Your task to perform on an android device: turn pop-ups on in chrome Image 0: 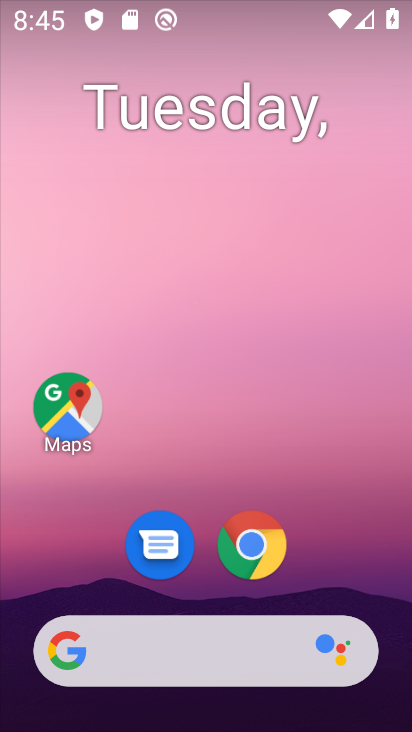
Step 0: click (244, 544)
Your task to perform on an android device: turn pop-ups on in chrome Image 1: 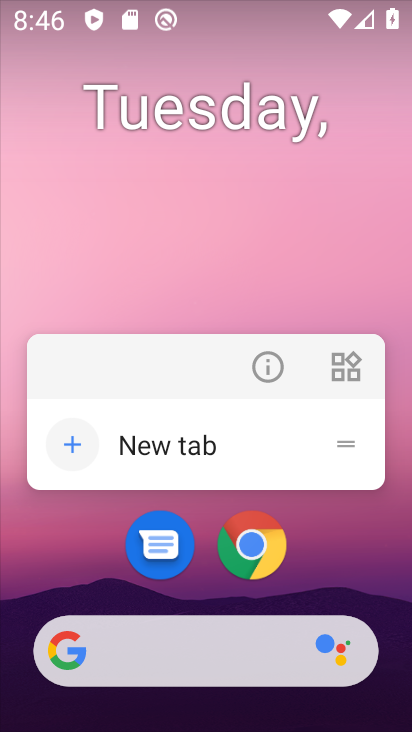
Step 1: click (237, 546)
Your task to perform on an android device: turn pop-ups on in chrome Image 2: 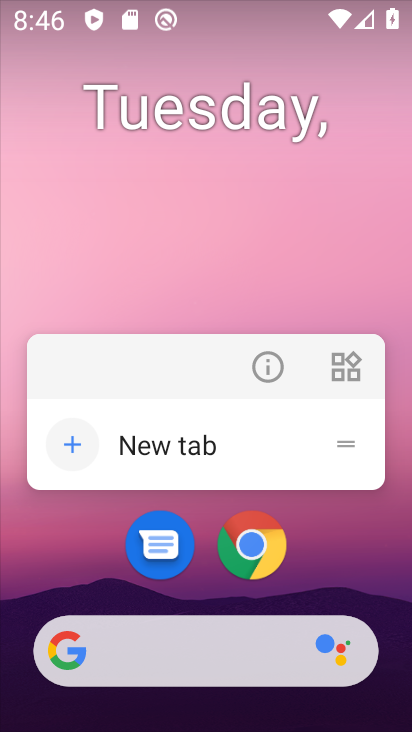
Step 2: click (238, 544)
Your task to perform on an android device: turn pop-ups on in chrome Image 3: 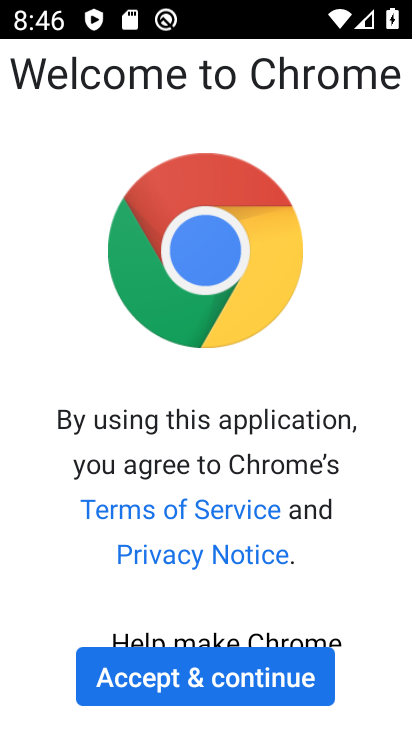
Step 3: click (258, 672)
Your task to perform on an android device: turn pop-ups on in chrome Image 4: 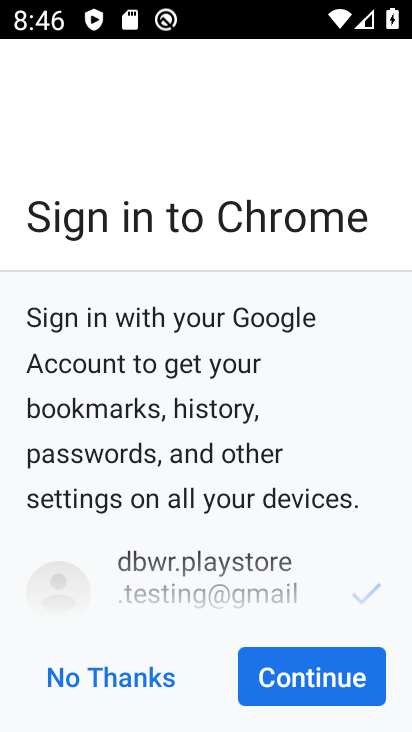
Step 4: click (261, 668)
Your task to perform on an android device: turn pop-ups on in chrome Image 5: 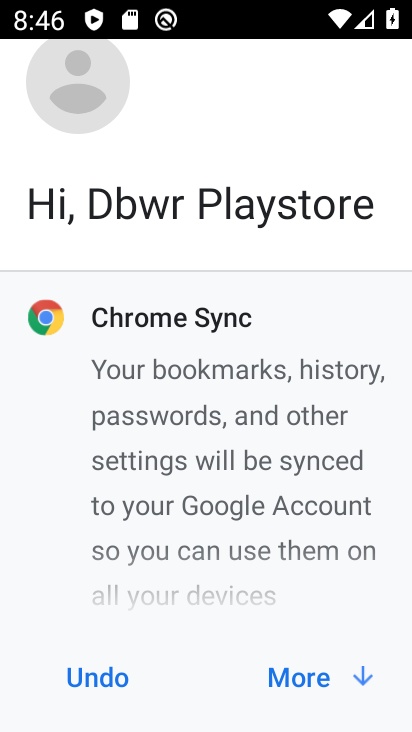
Step 5: click (258, 663)
Your task to perform on an android device: turn pop-ups on in chrome Image 6: 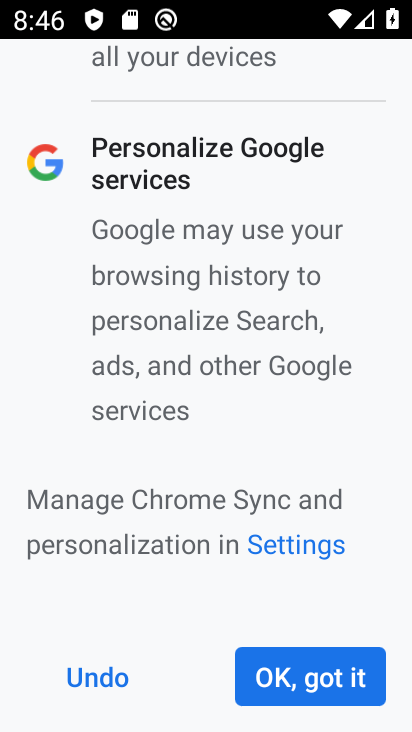
Step 6: click (265, 660)
Your task to perform on an android device: turn pop-ups on in chrome Image 7: 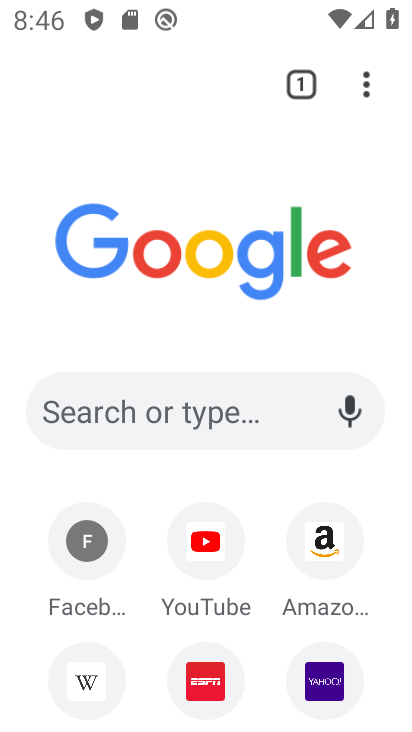
Step 7: click (371, 93)
Your task to perform on an android device: turn pop-ups on in chrome Image 8: 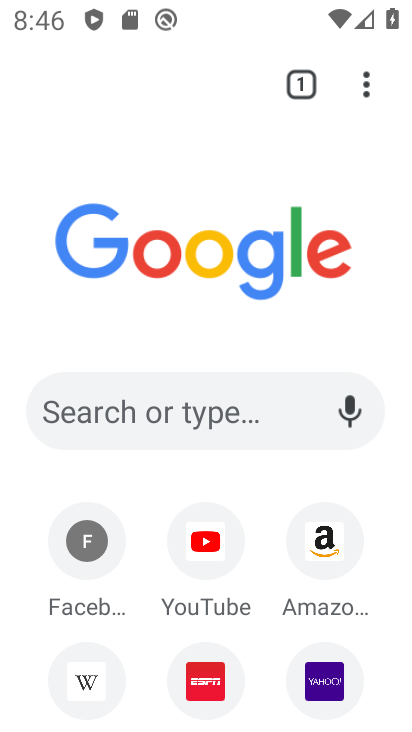
Step 8: click (389, 85)
Your task to perform on an android device: turn pop-ups on in chrome Image 9: 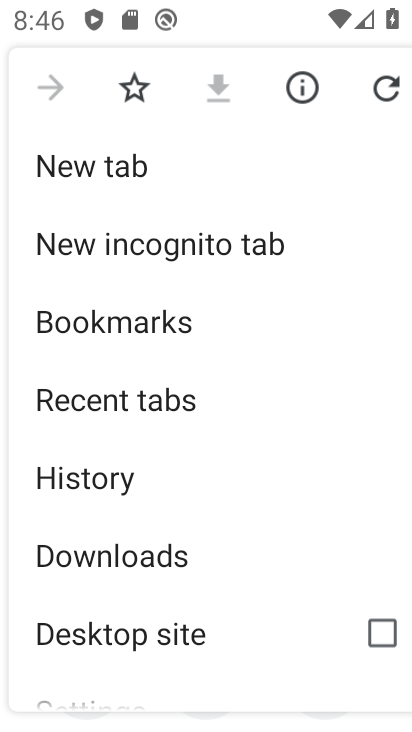
Step 9: drag from (212, 607) to (191, 252)
Your task to perform on an android device: turn pop-ups on in chrome Image 10: 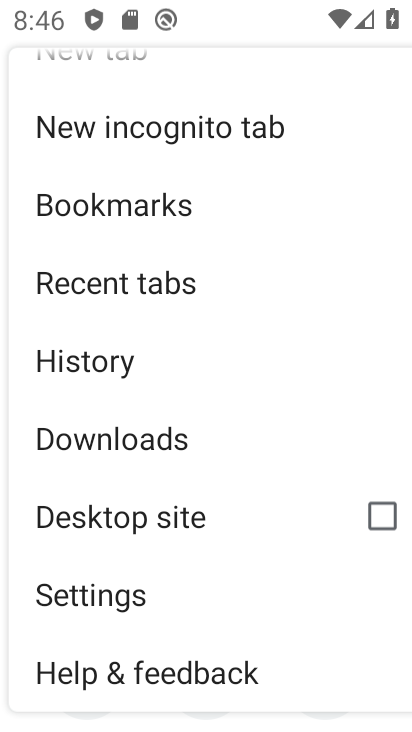
Step 10: click (148, 593)
Your task to perform on an android device: turn pop-ups on in chrome Image 11: 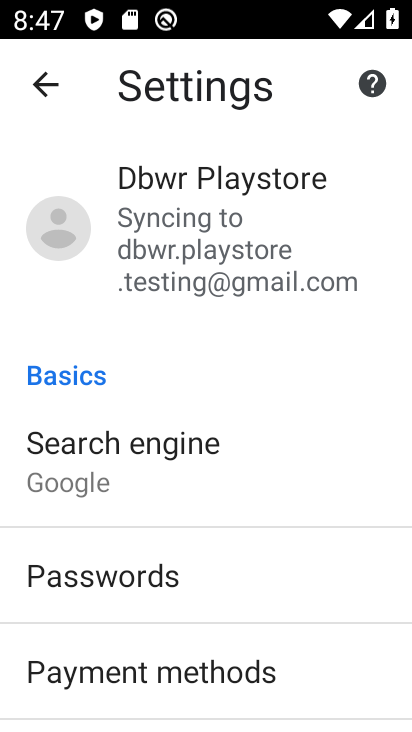
Step 11: drag from (157, 583) to (236, 254)
Your task to perform on an android device: turn pop-ups on in chrome Image 12: 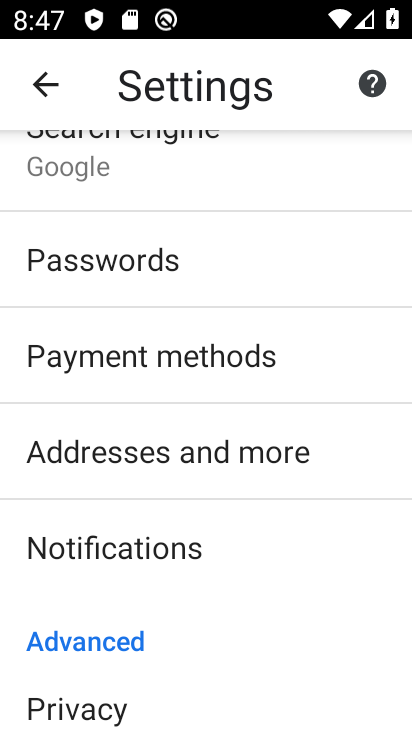
Step 12: drag from (162, 604) to (191, 195)
Your task to perform on an android device: turn pop-ups on in chrome Image 13: 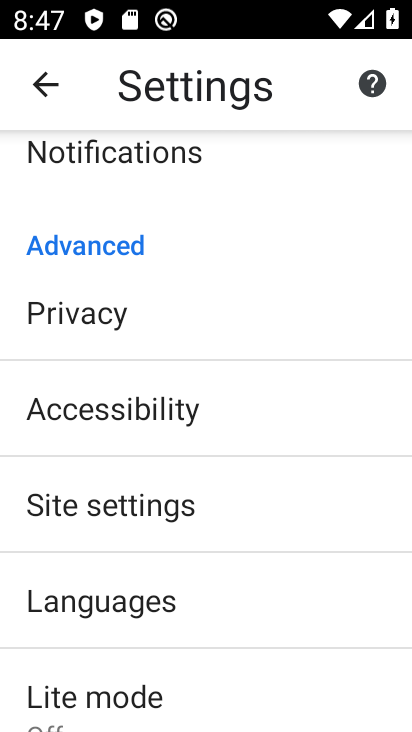
Step 13: click (131, 495)
Your task to perform on an android device: turn pop-ups on in chrome Image 14: 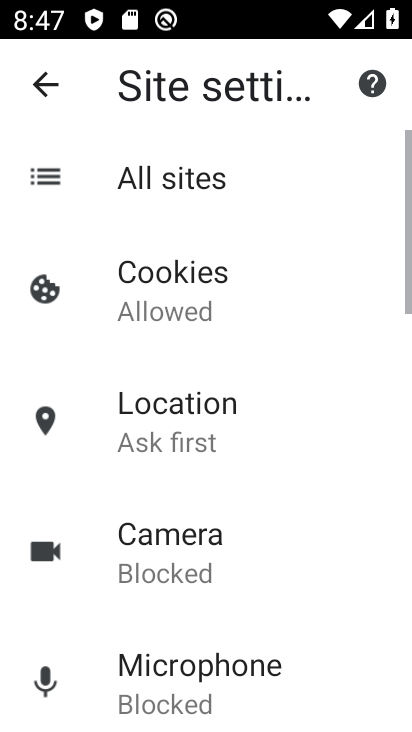
Step 14: drag from (256, 616) to (291, 283)
Your task to perform on an android device: turn pop-ups on in chrome Image 15: 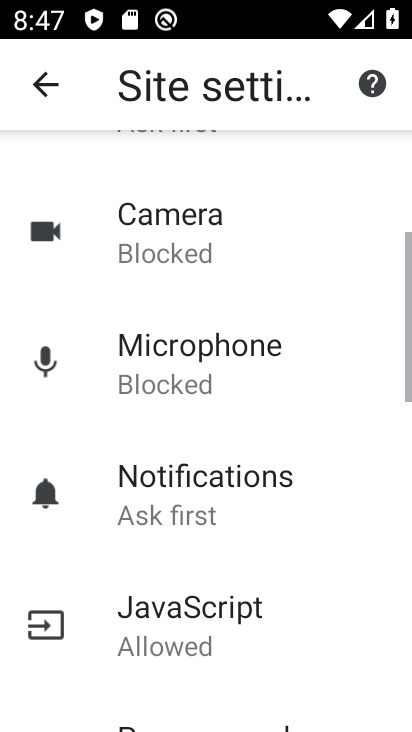
Step 15: drag from (225, 615) to (253, 253)
Your task to perform on an android device: turn pop-ups on in chrome Image 16: 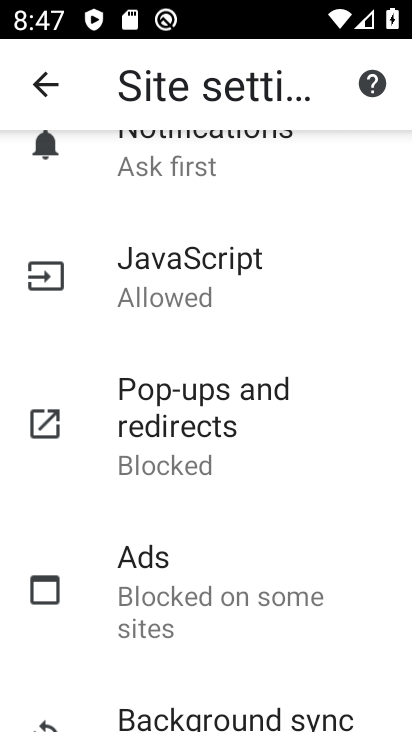
Step 16: click (197, 434)
Your task to perform on an android device: turn pop-ups on in chrome Image 17: 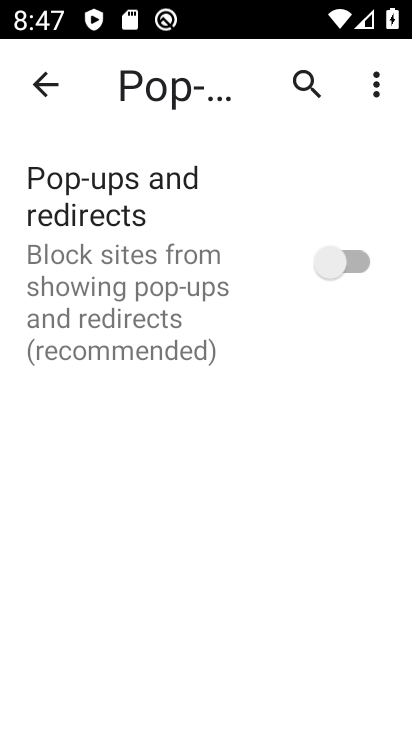
Step 17: click (355, 266)
Your task to perform on an android device: turn pop-ups on in chrome Image 18: 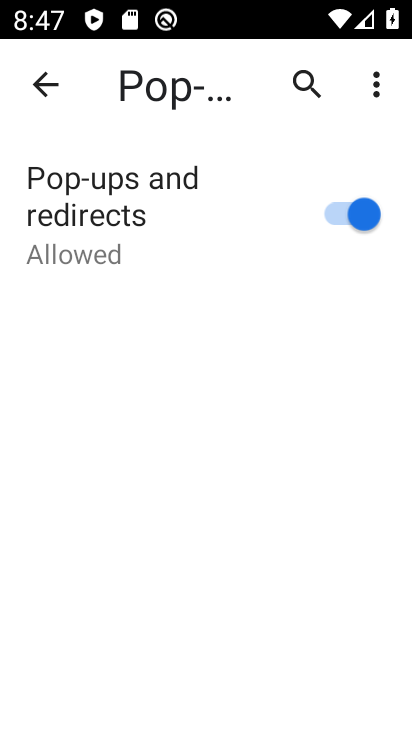
Step 18: task complete